Your task to perform on an android device: check battery use Image 0: 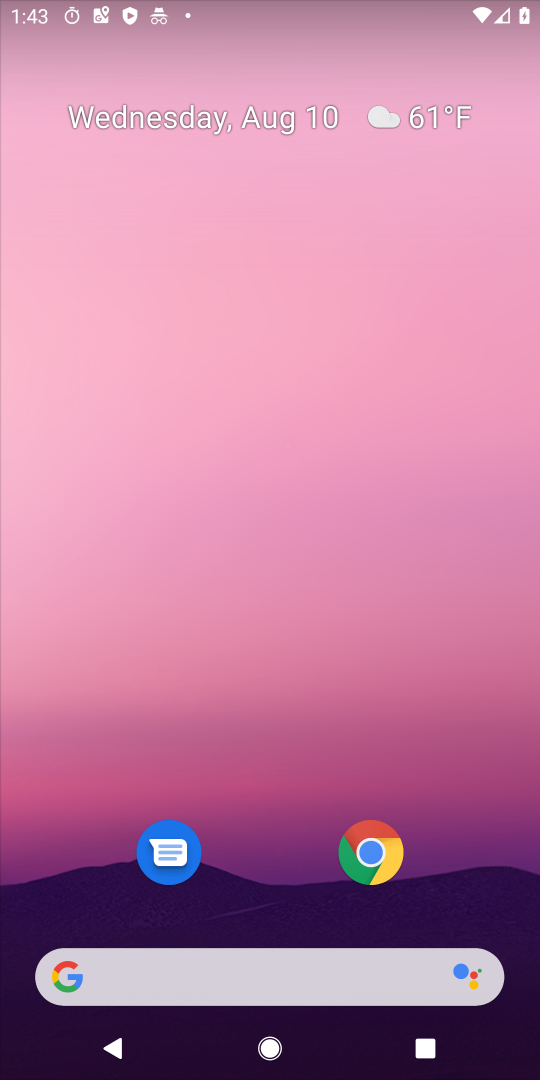
Step 0: press home button
Your task to perform on an android device: check battery use Image 1: 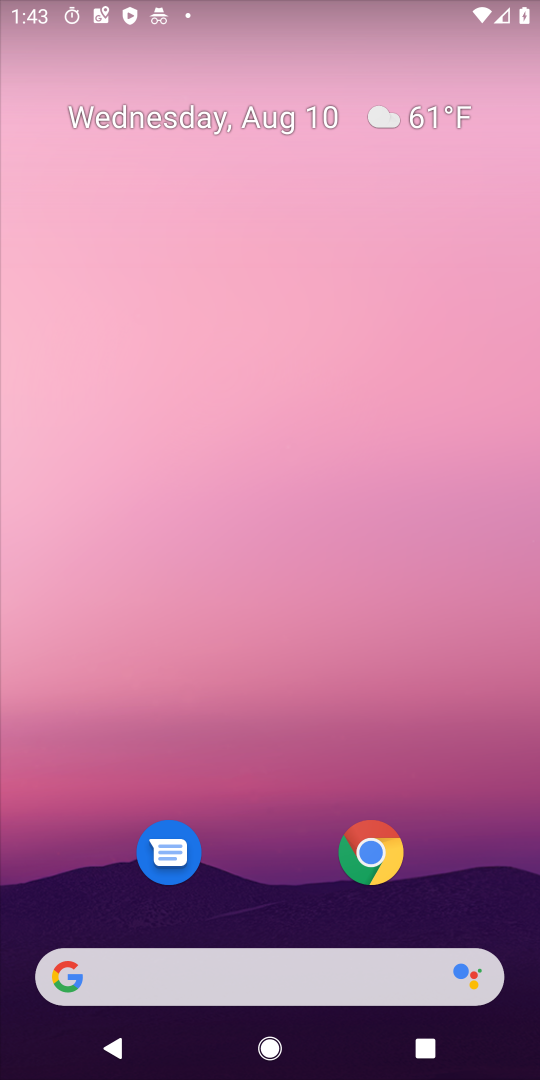
Step 1: drag from (253, 774) to (328, 57)
Your task to perform on an android device: check battery use Image 2: 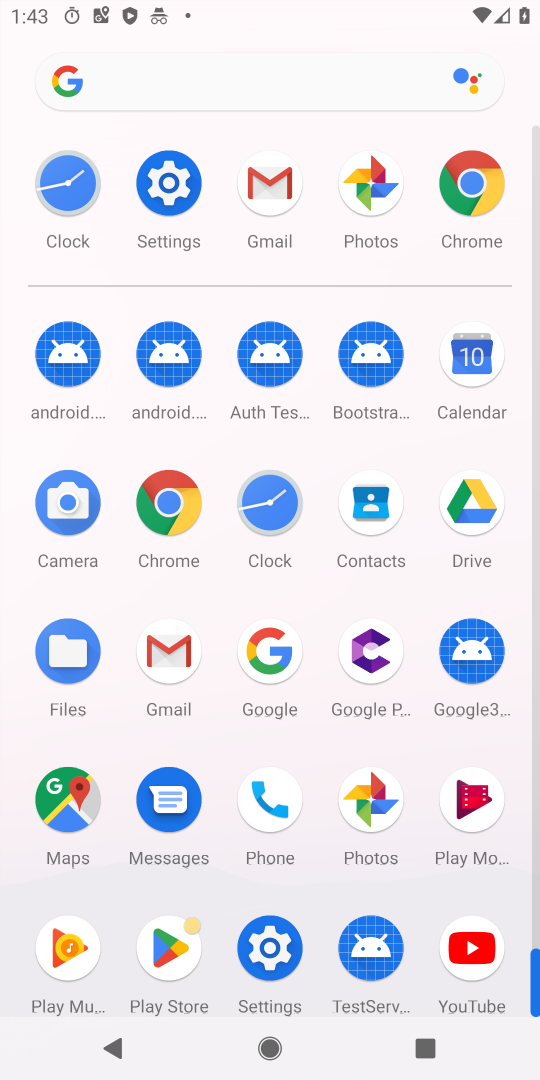
Step 2: click (276, 944)
Your task to perform on an android device: check battery use Image 3: 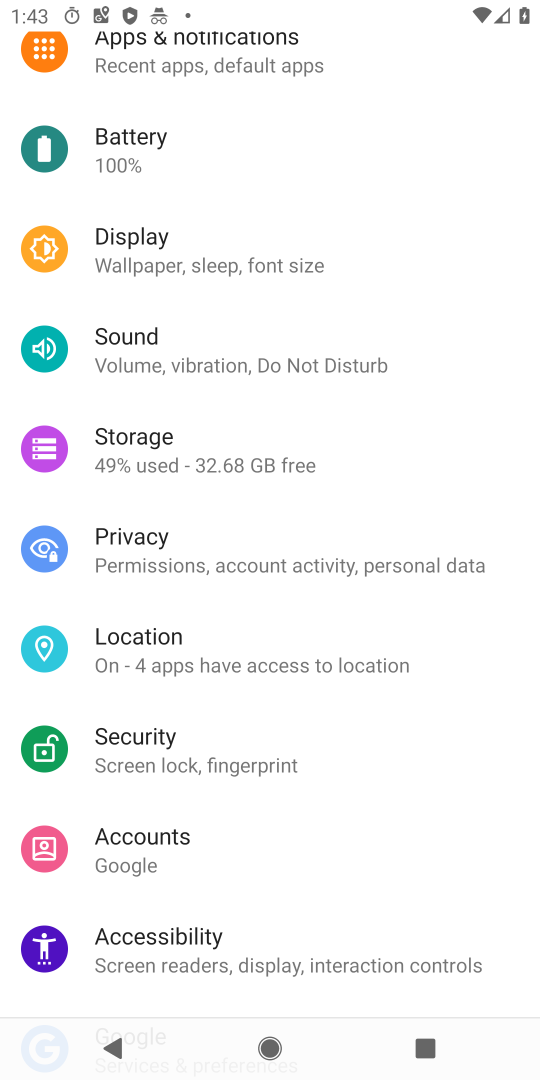
Step 3: drag from (309, 890) to (322, 463)
Your task to perform on an android device: check battery use Image 4: 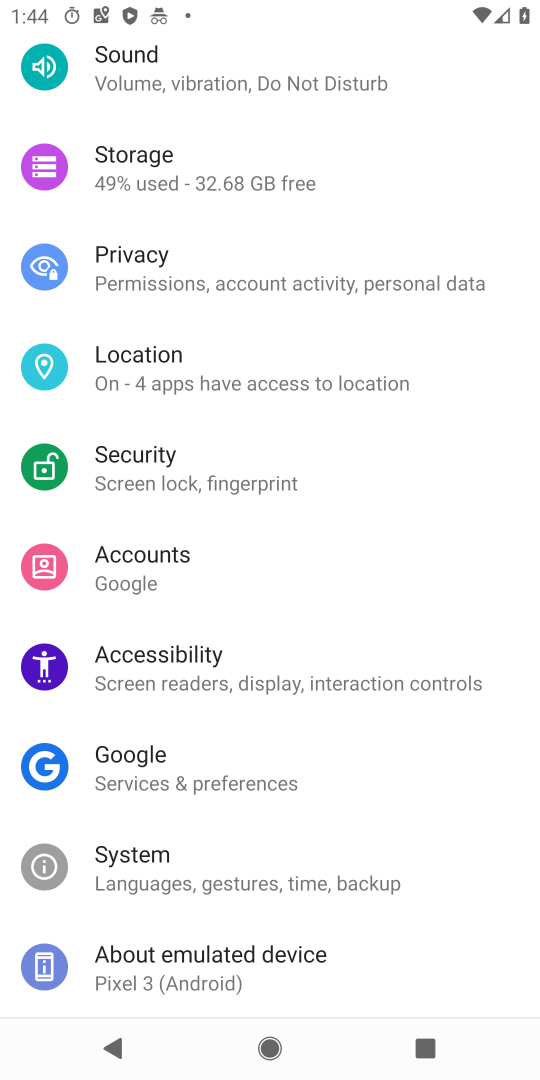
Step 4: drag from (361, 197) to (338, 821)
Your task to perform on an android device: check battery use Image 5: 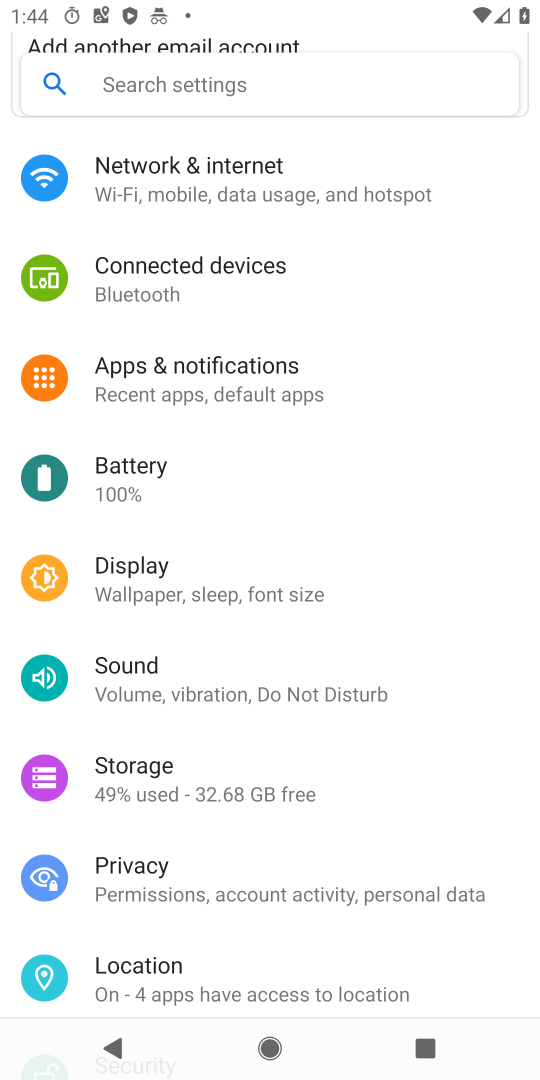
Step 5: click (147, 494)
Your task to perform on an android device: check battery use Image 6: 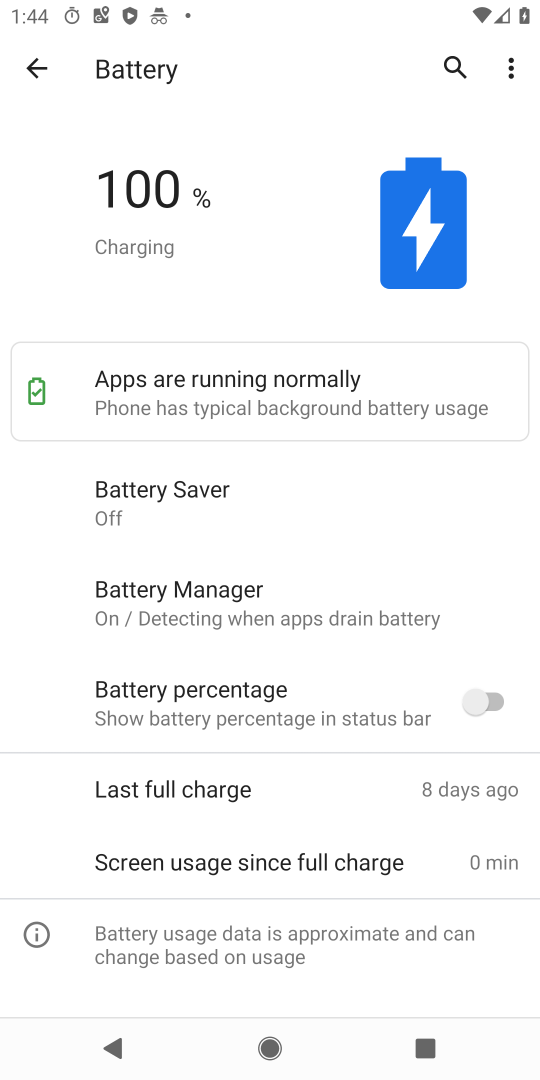
Step 6: click (518, 50)
Your task to perform on an android device: check battery use Image 7: 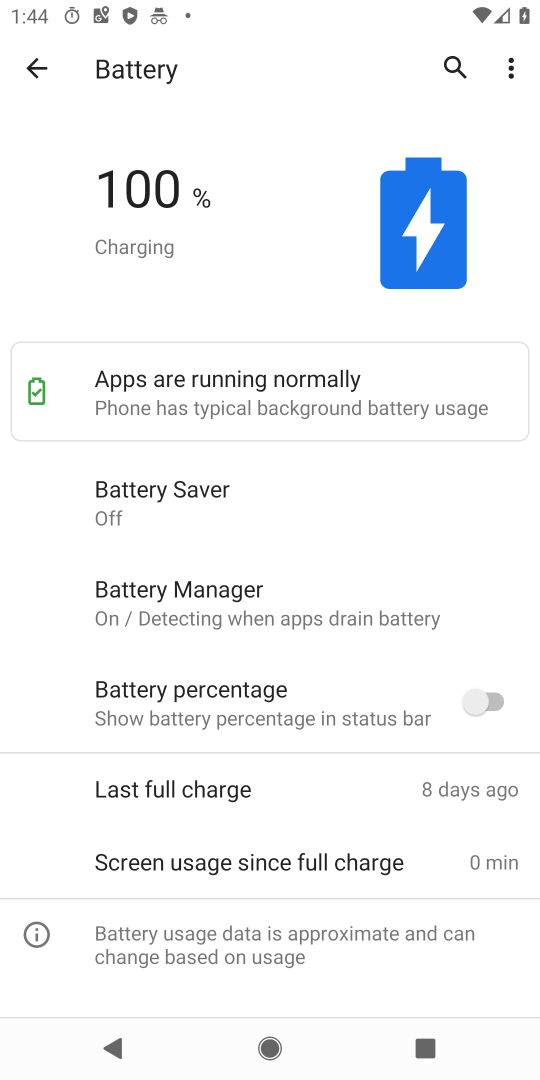
Step 7: click (513, 67)
Your task to perform on an android device: check battery use Image 8: 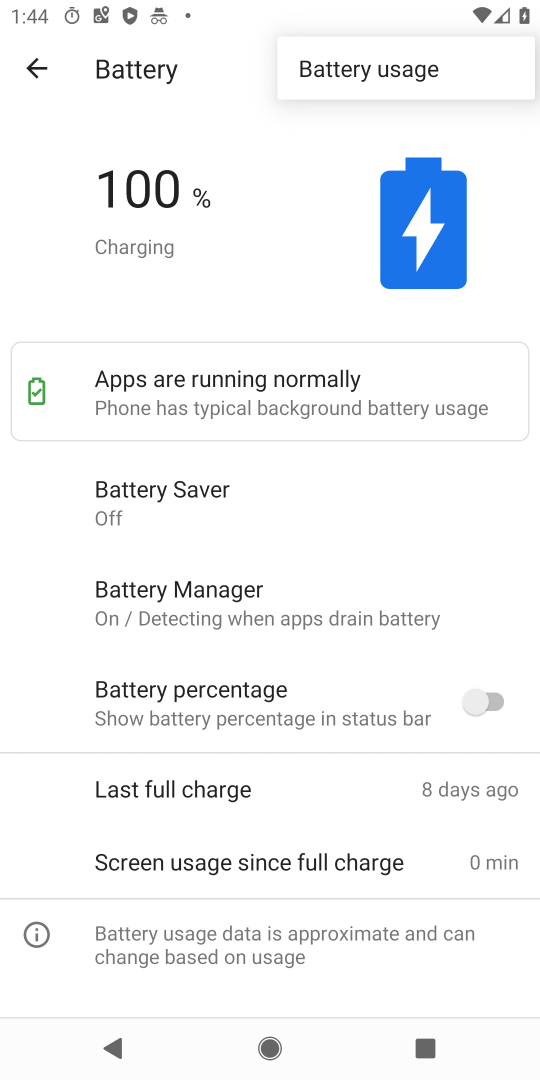
Step 8: click (400, 66)
Your task to perform on an android device: check battery use Image 9: 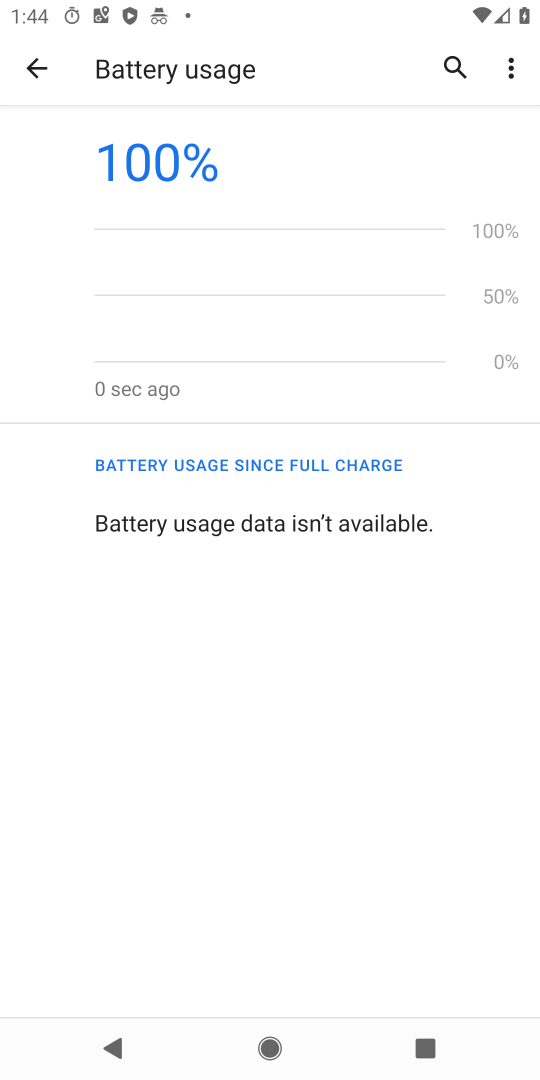
Step 9: task complete